Your task to perform on an android device: Go to internet settings Image 0: 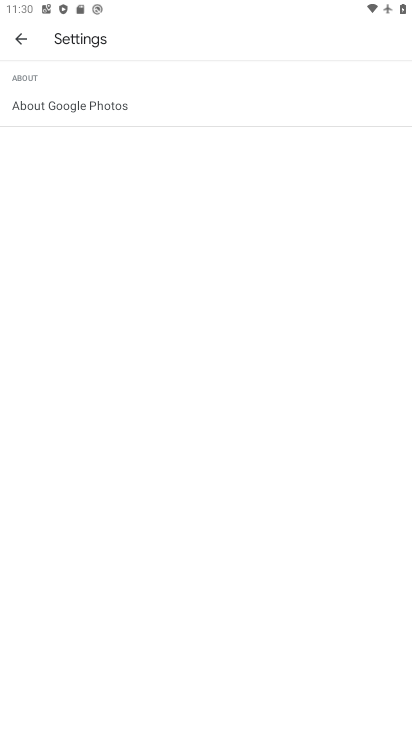
Step 0: press home button
Your task to perform on an android device: Go to internet settings Image 1: 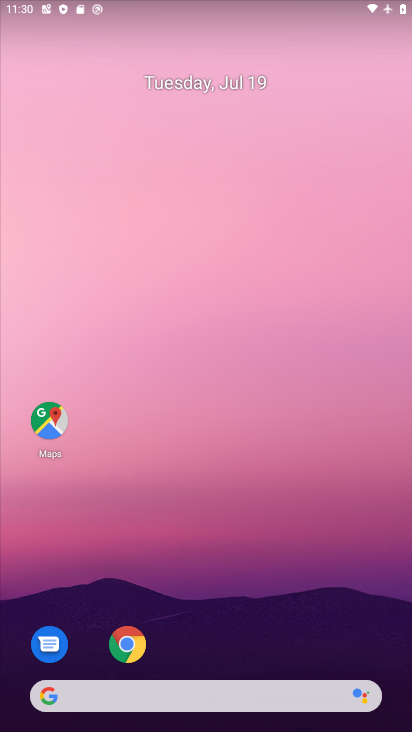
Step 1: drag from (24, 700) to (134, 34)
Your task to perform on an android device: Go to internet settings Image 2: 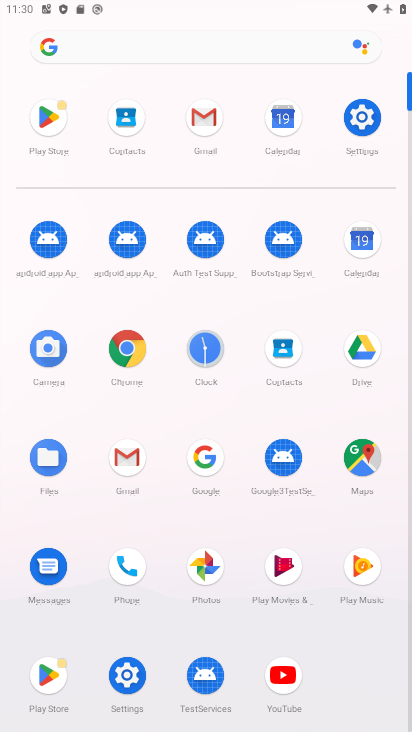
Step 2: click (124, 687)
Your task to perform on an android device: Go to internet settings Image 3: 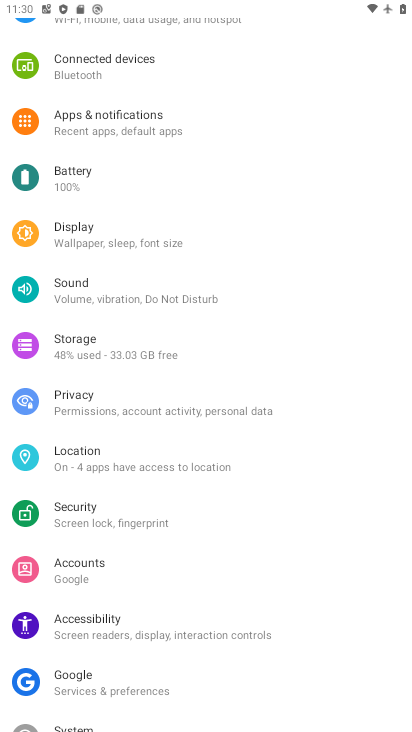
Step 3: drag from (200, 136) to (298, 684)
Your task to perform on an android device: Go to internet settings Image 4: 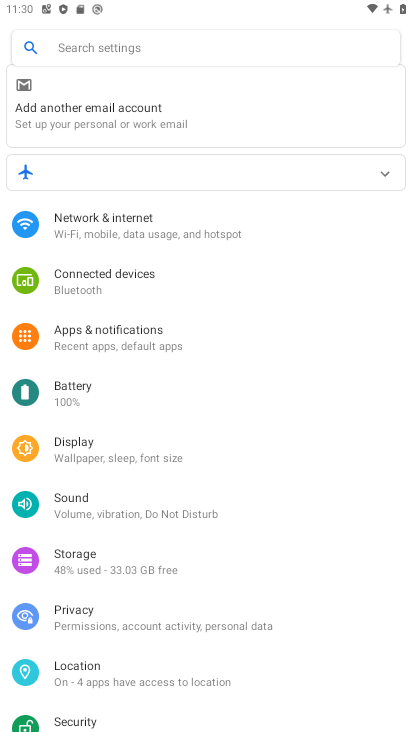
Step 4: click (135, 226)
Your task to perform on an android device: Go to internet settings Image 5: 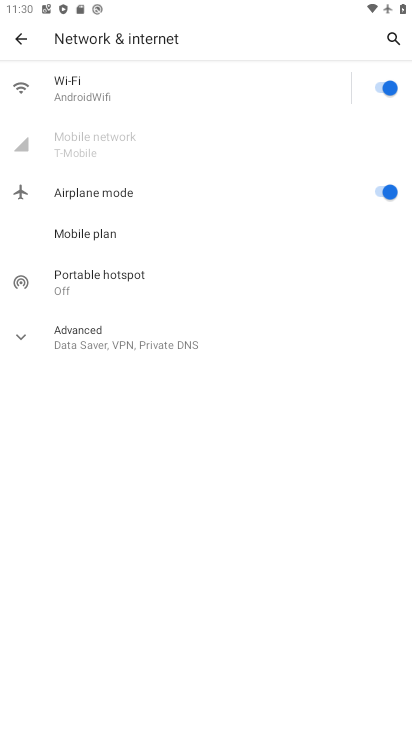
Step 5: task complete